Your task to perform on an android device: Open Google Chrome and click the shortcut for Amazon.com Image 0: 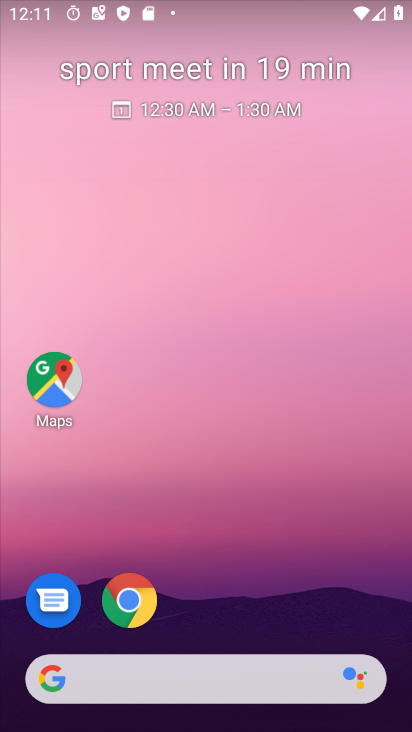
Step 0: click (144, 606)
Your task to perform on an android device: Open Google Chrome and click the shortcut for Amazon.com Image 1: 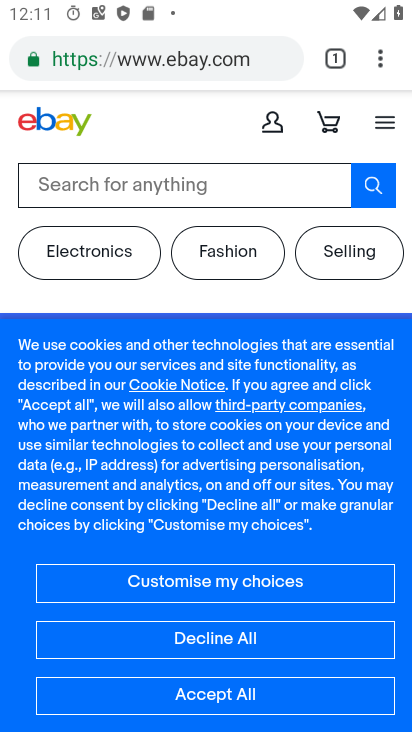
Step 1: drag from (214, 28) to (202, 226)
Your task to perform on an android device: Open Google Chrome and click the shortcut for Amazon.com Image 2: 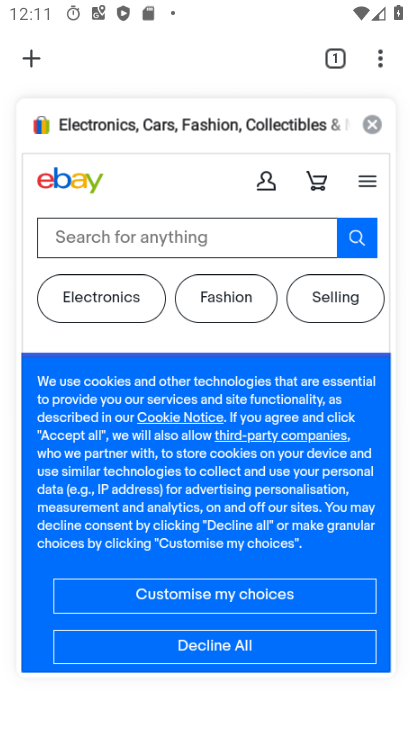
Step 2: click (28, 61)
Your task to perform on an android device: Open Google Chrome and click the shortcut for Amazon.com Image 3: 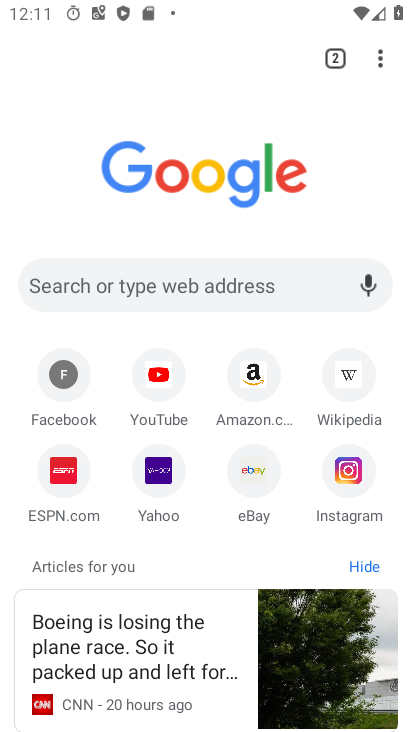
Step 3: click (252, 384)
Your task to perform on an android device: Open Google Chrome and click the shortcut for Amazon.com Image 4: 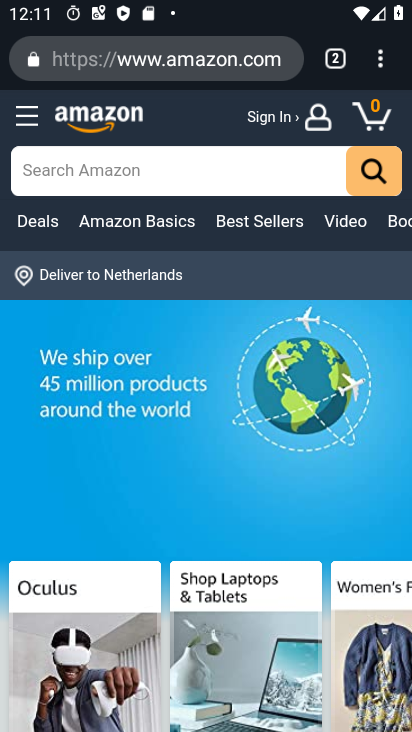
Step 4: task complete